Your task to perform on an android device: turn off airplane mode Image 0: 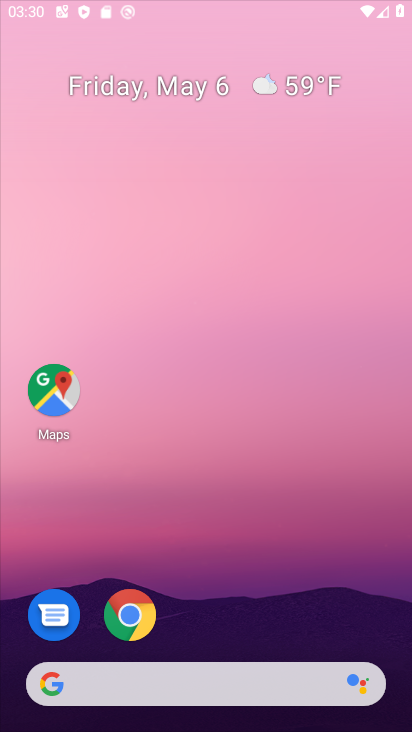
Step 0: drag from (307, 666) to (135, 74)
Your task to perform on an android device: turn off airplane mode Image 1: 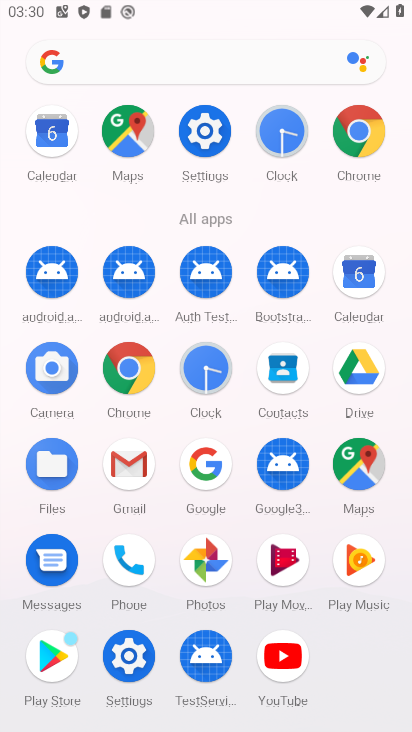
Step 1: click (352, 139)
Your task to perform on an android device: turn off airplane mode Image 2: 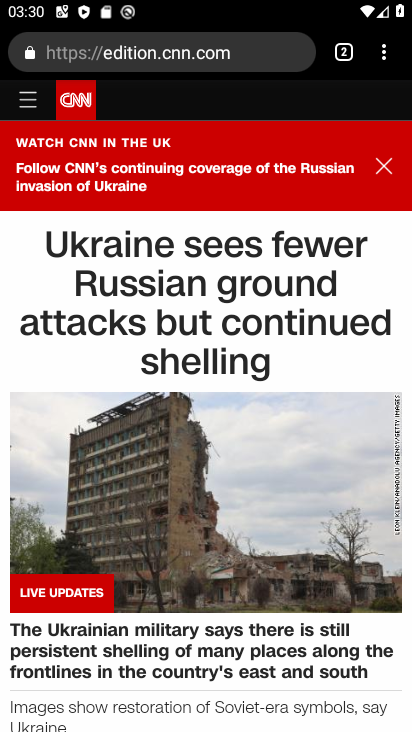
Step 2: click (381, 54)
Your task to perform on an android device: turn off airplane mode Image 3: 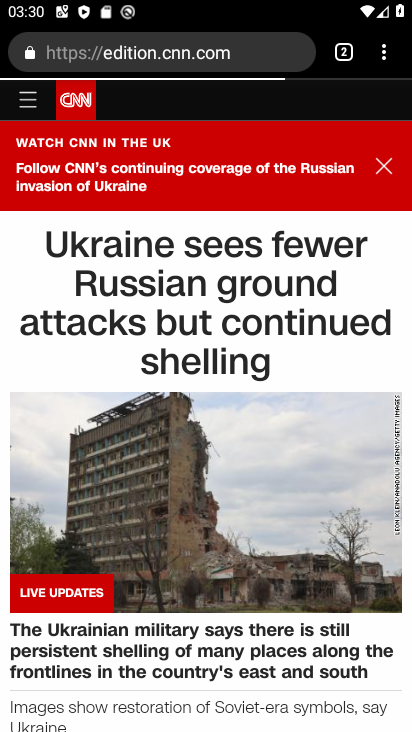
Step 3: click (381, 54)
Your task to perform on an android device: turn off airplane mode Image 4: 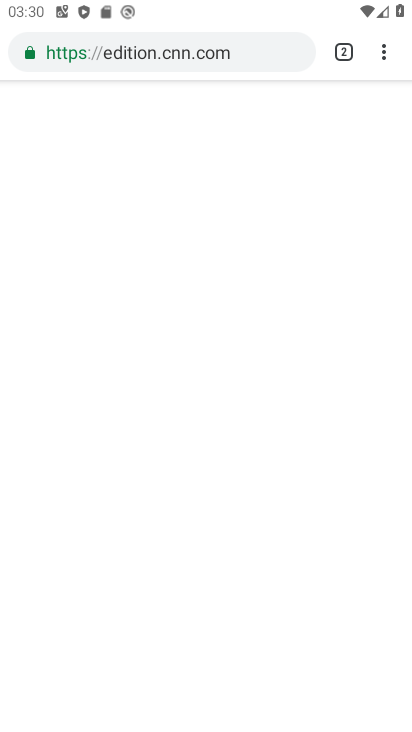
Step 4: press home button
Your task to perform on an android device: turn off airplane mode Image 5: 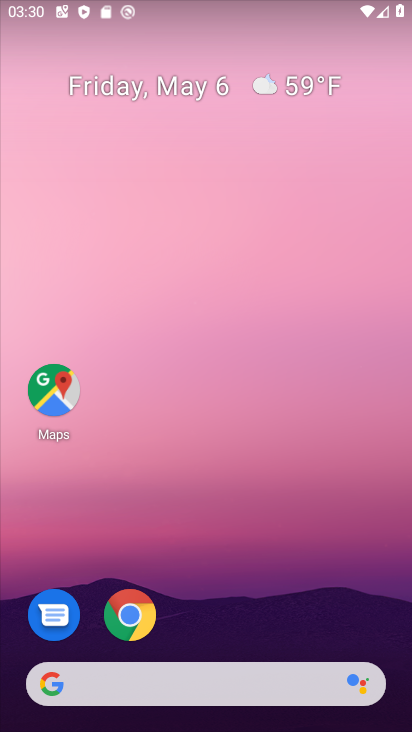
Step 5: drag from (166, 116) to (148, 50)
Your task to perform on an android device: turn off airplane mode Image 6: 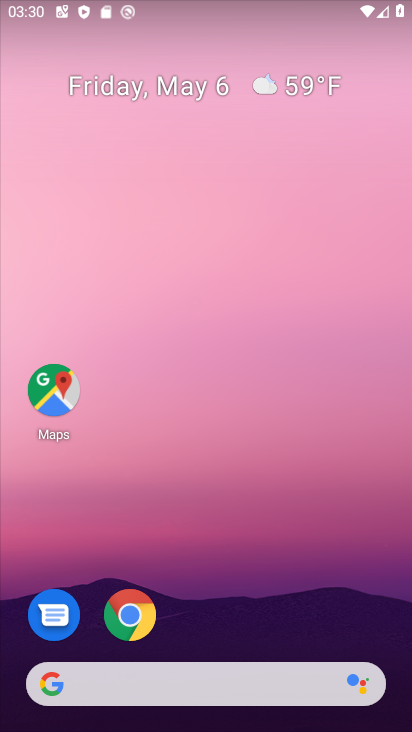
Step 6: drag from (306, 629) to (241, 7)
Your task to perform on an android device: turn off airplane mode Image 7: 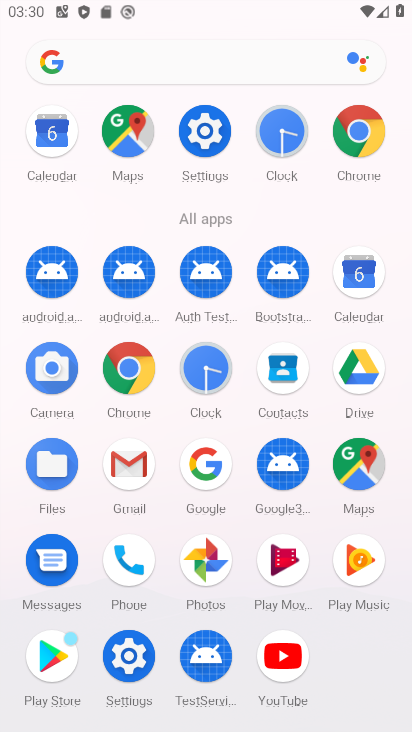
Step 7: click (196, 135)
Your task to perform on an android device: turn off airplane mode Image 8: 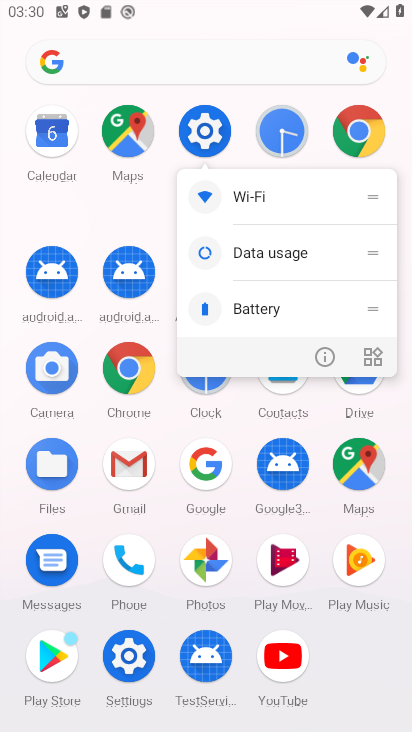
Step 8: click (198, 135)
Your task to perform on an android device: turn off airplane mode Image 9: 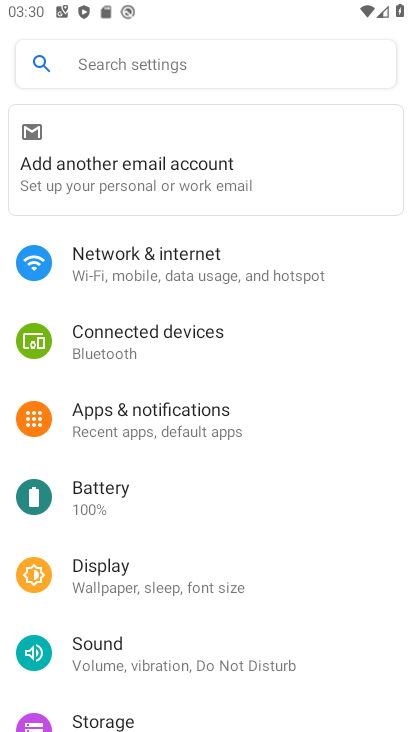
Step 9: click (147, 258)
Your task to perform on an android device: turn off airplane mode Image 10: 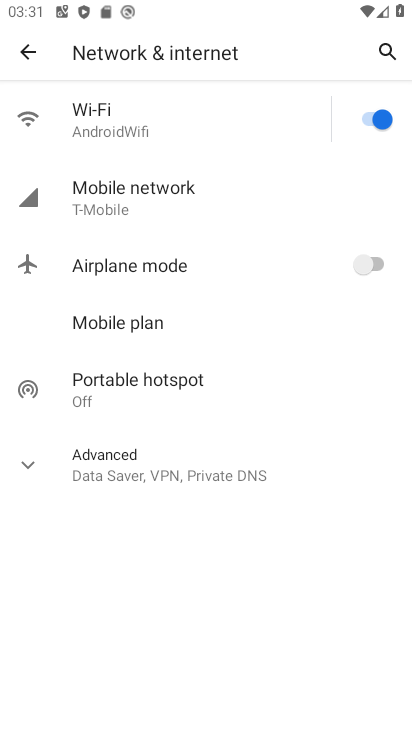
Step 10: task complete